Your task to perform on an android device: Add "razer blade" to the cart on costco.com Image 0: 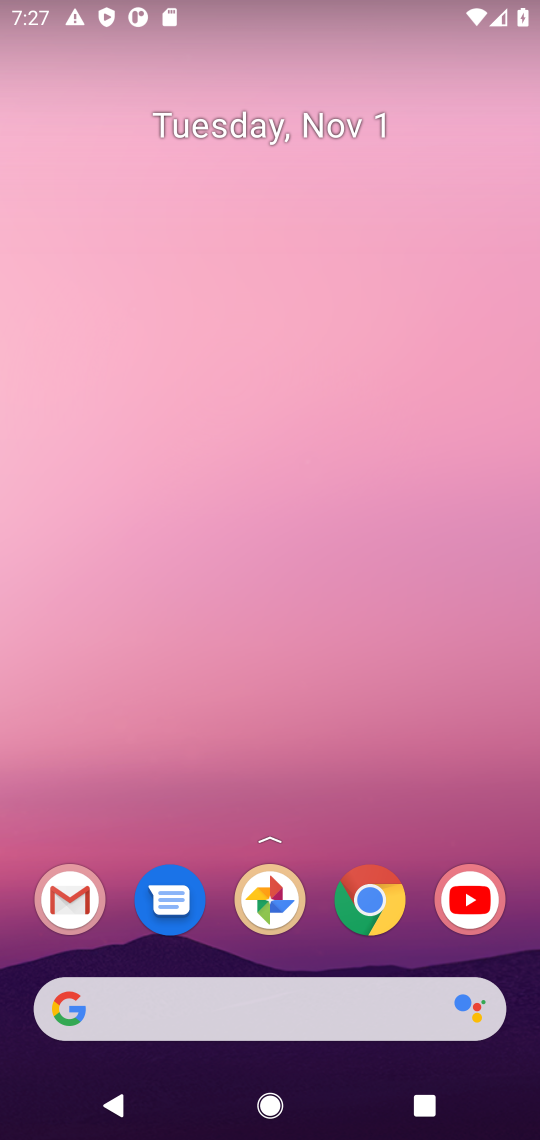
Step 0: drag from (338, 915) to (494, 490)
Your task to perform on an android device: Add "razer blade" to the cart on costco.com Image 1: 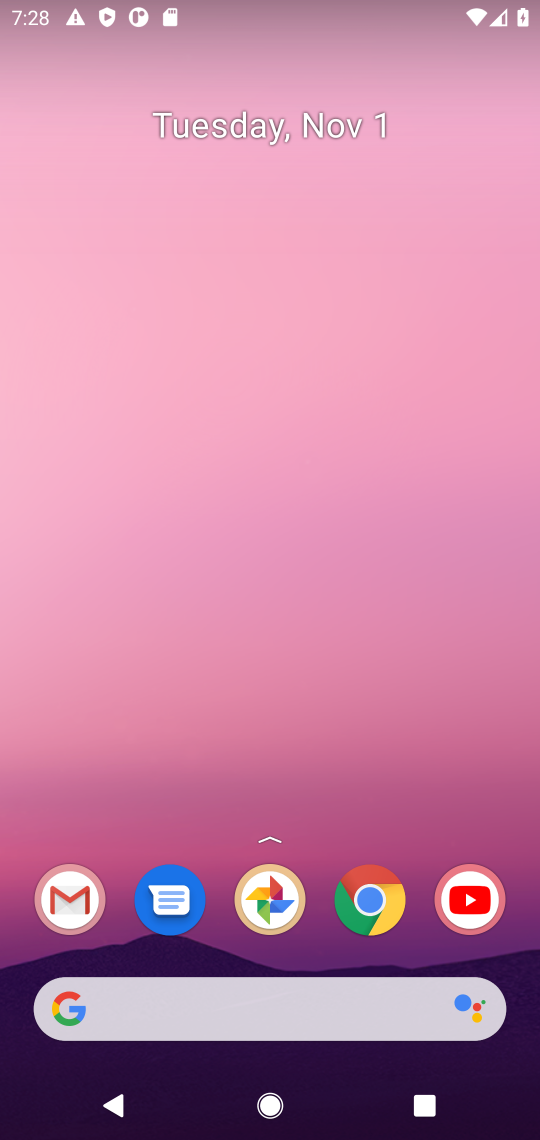
Step 1: drag from (304, 952) to (309, 21)
Your task to perform on an android device: Add "razer blade" to the cart on costco.com Image 2: 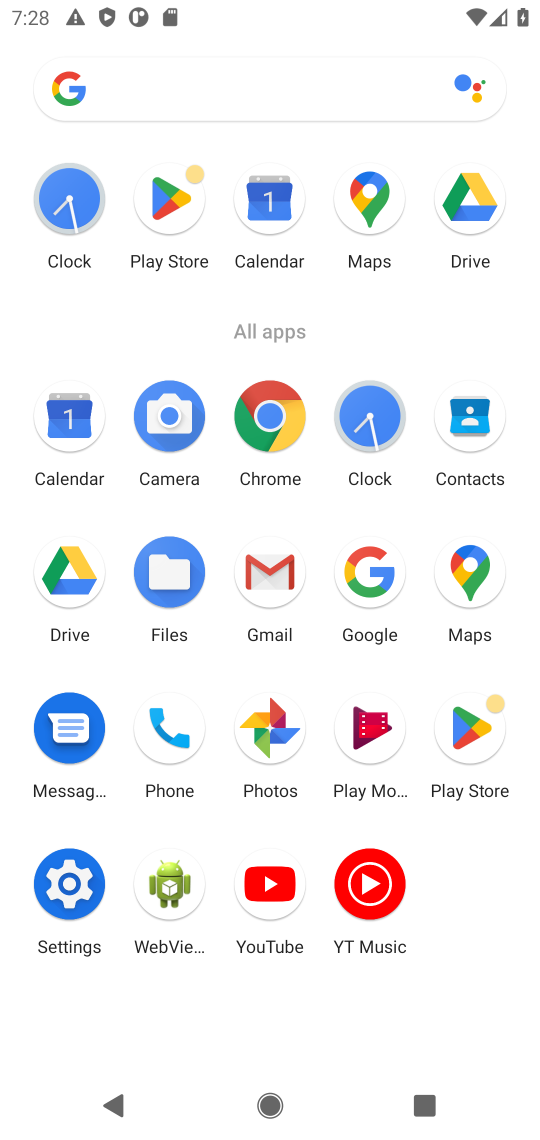
Step 2: click (277, 426)
Your task to perform on an android device: Add "razer blade" to the cart on costco.com Image 3: 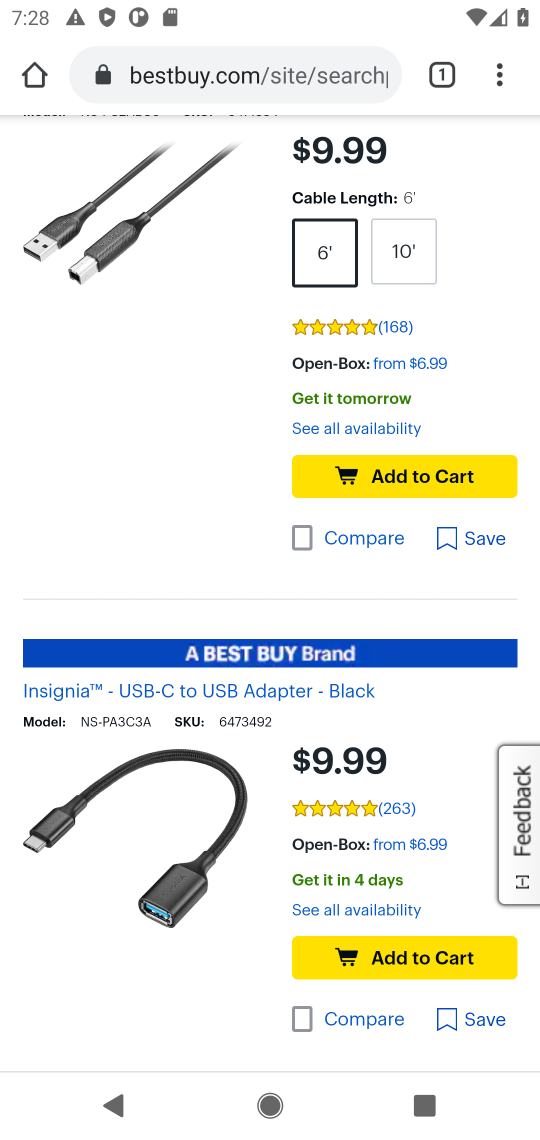
Step 3: click (272, 72)
Your task to perform on an android device: Add "razer blade" to the cart on costco.com Image 4: 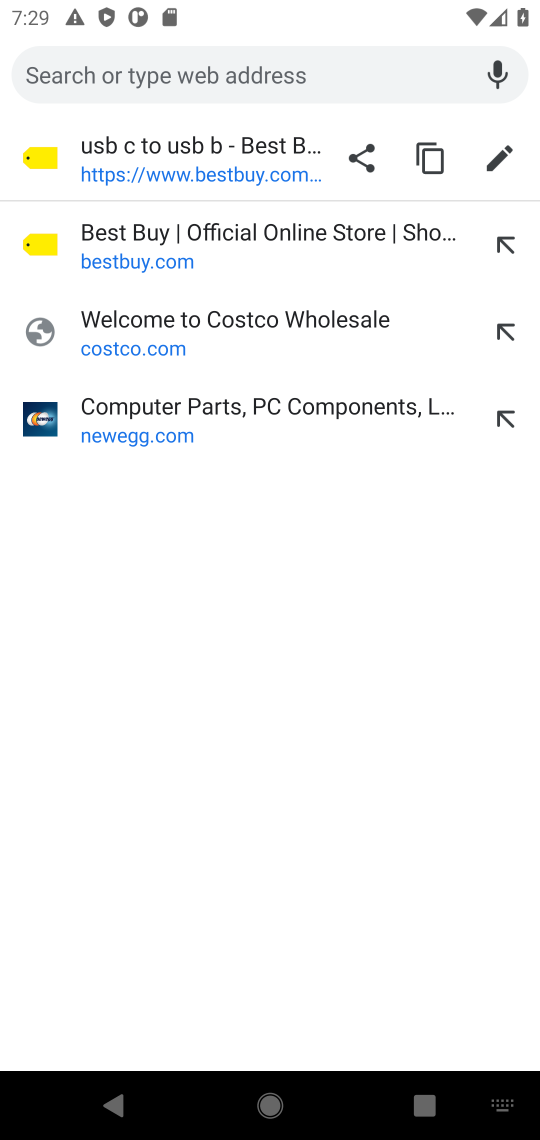
Step 4: type "costco.com"
Your task to perform on an android device: Add "razer blade" to the cart on costco.com Image 5: 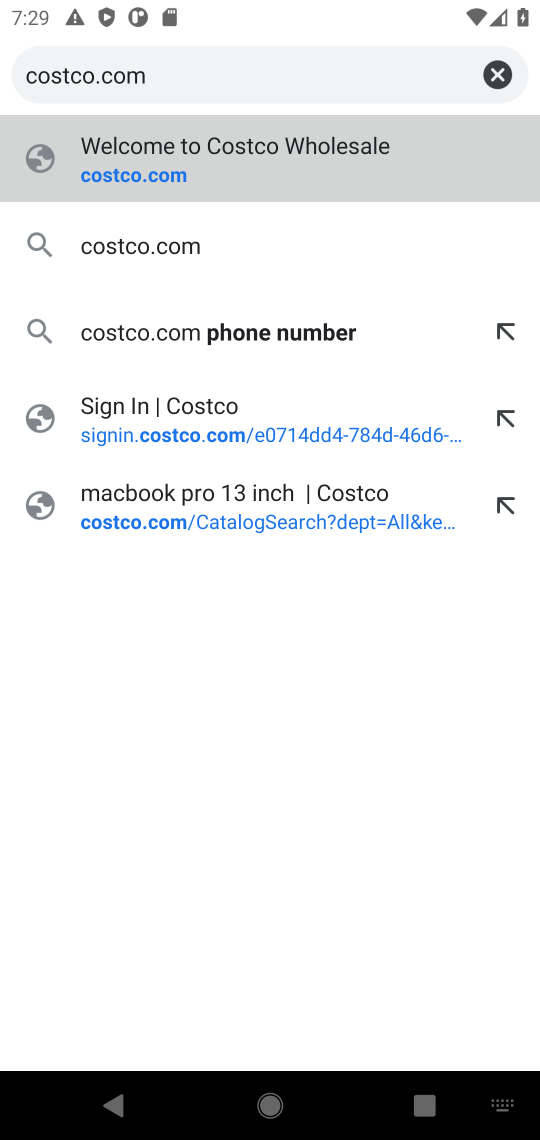
Step 5: press enter
Your task to perform on an android device: Add "razer blade" to the cart on costco.com Image 6: 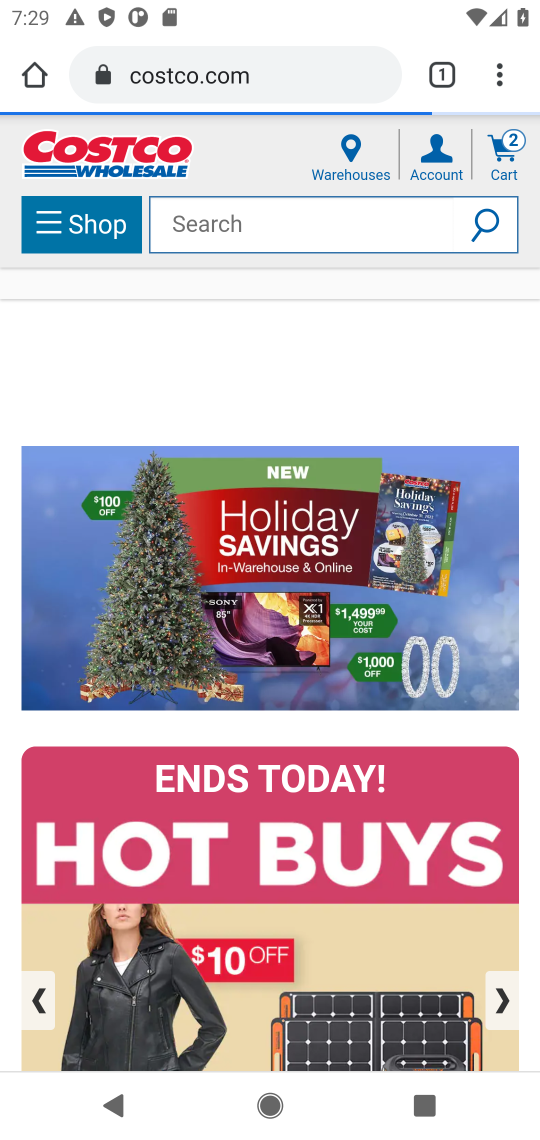
Step 6: click (342, 231)
Your task to perform on an android device: Add "razer blade" to the cart on costco.com Image 7: 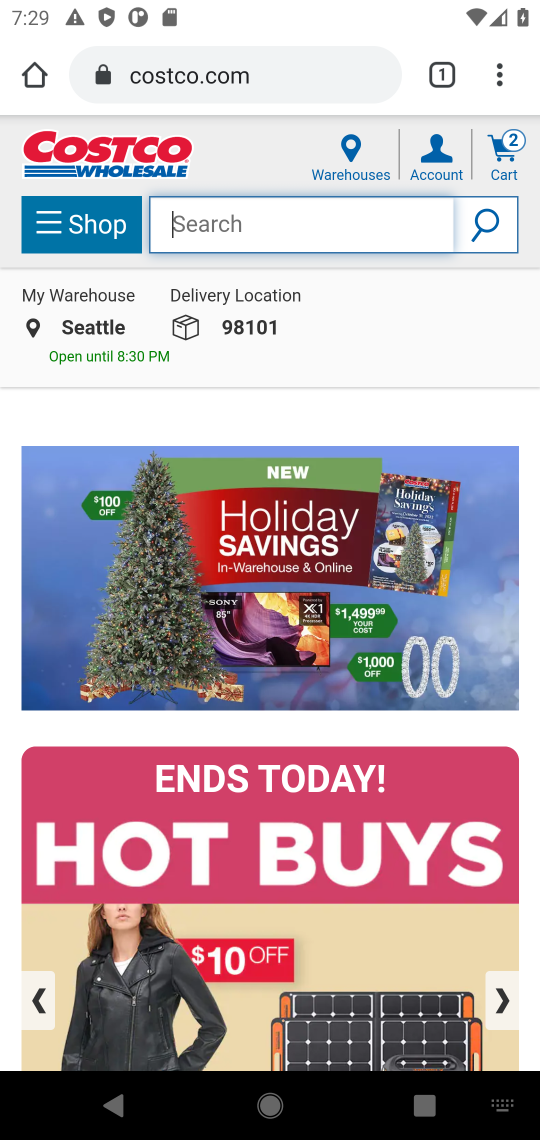
Step 7: type "razer blade"
Your task to perform on an android device: Add "razer blade" to the cart on costco.com Image 8: 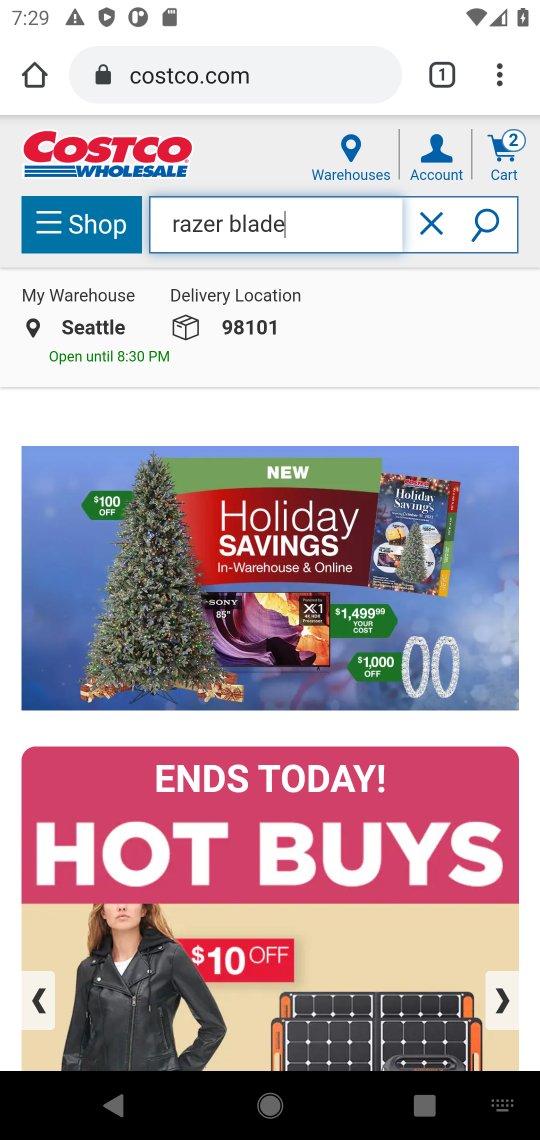
Step 8: press enter
Your task to perform on an android device: Add "razer blade" to the cart on costco.com Image 9: 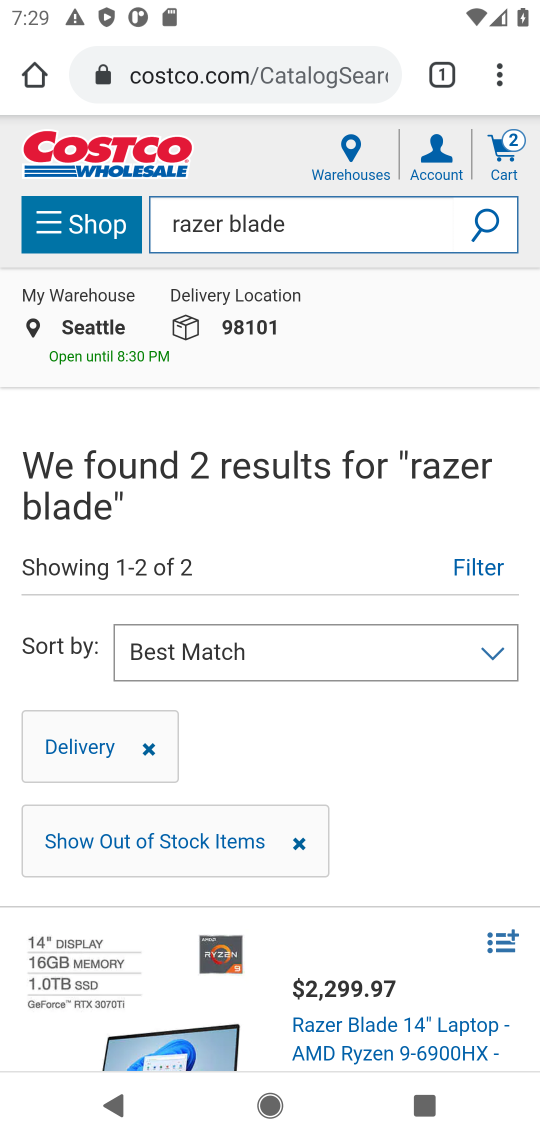
Step 9: drag from (349, 796) to (379, 417)
Your task to perform on an android device: Add "razer blade" to the cart on costco.com Image 10: 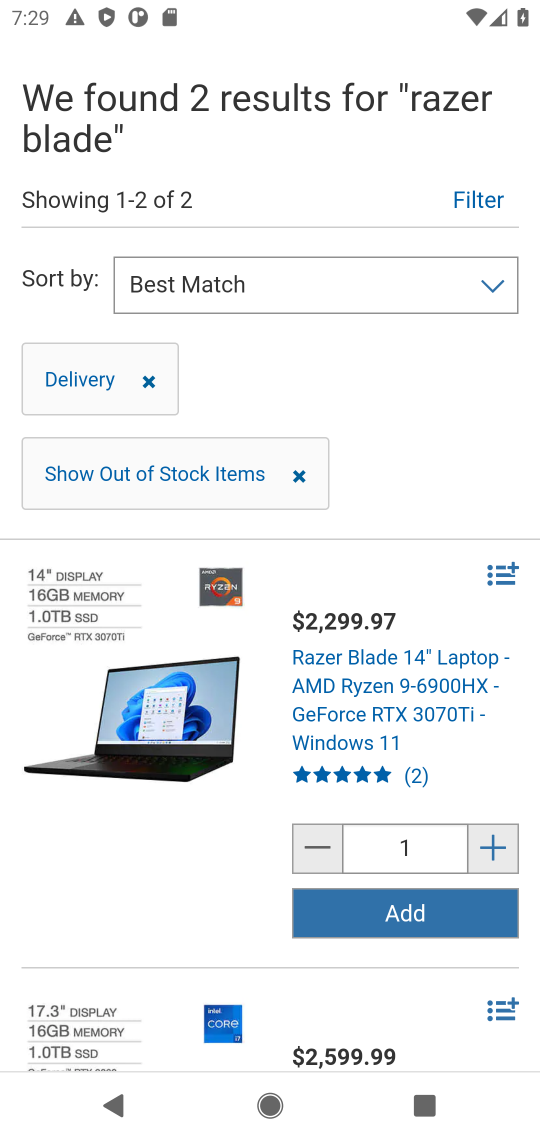
Step 10: click (402, 686)
Your task to perform on an android device: Add "razer blade" to the cart on costco.com Image 11: 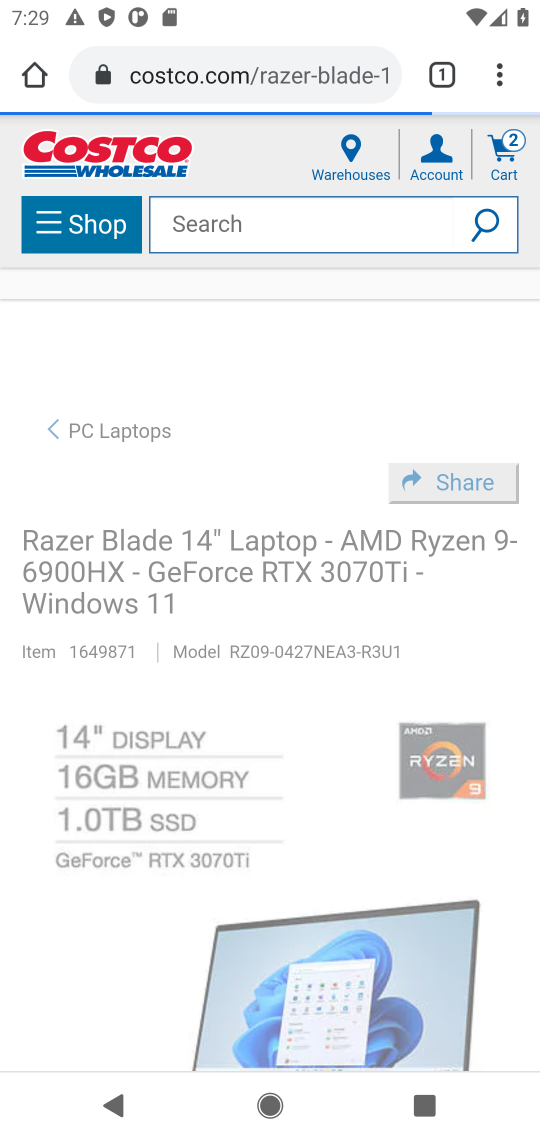
Step 11: drag from (309, 831) to (298, 154)
Your task to perform on an android device: Add "razer blade" to the cart on costco.com Image 12: 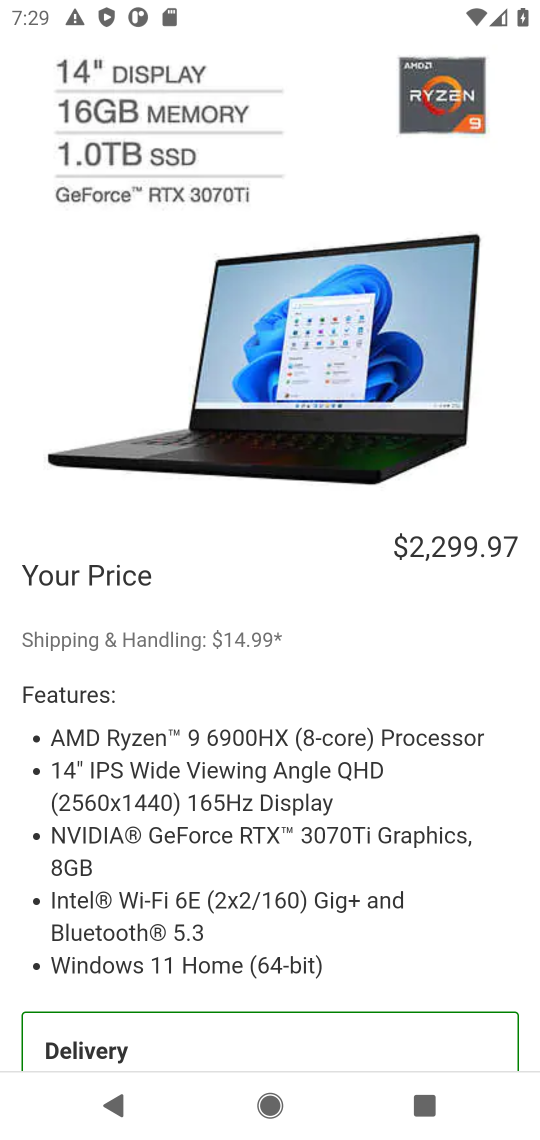
Step 12: drag from (272, 834) to (263, 252)
Your task to perform on an android device: Add "razer blade" to the cart on costco.com Image 13: 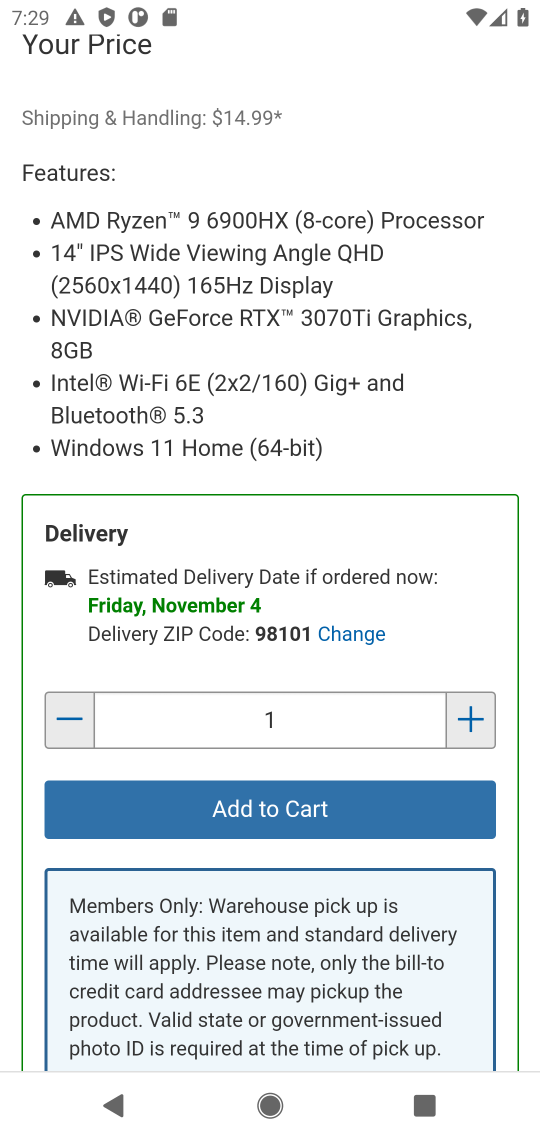
Step 13: click (326, 810)
Your task to perform on an android device: Add "razer blade" to the cart on costco.com Image 14: 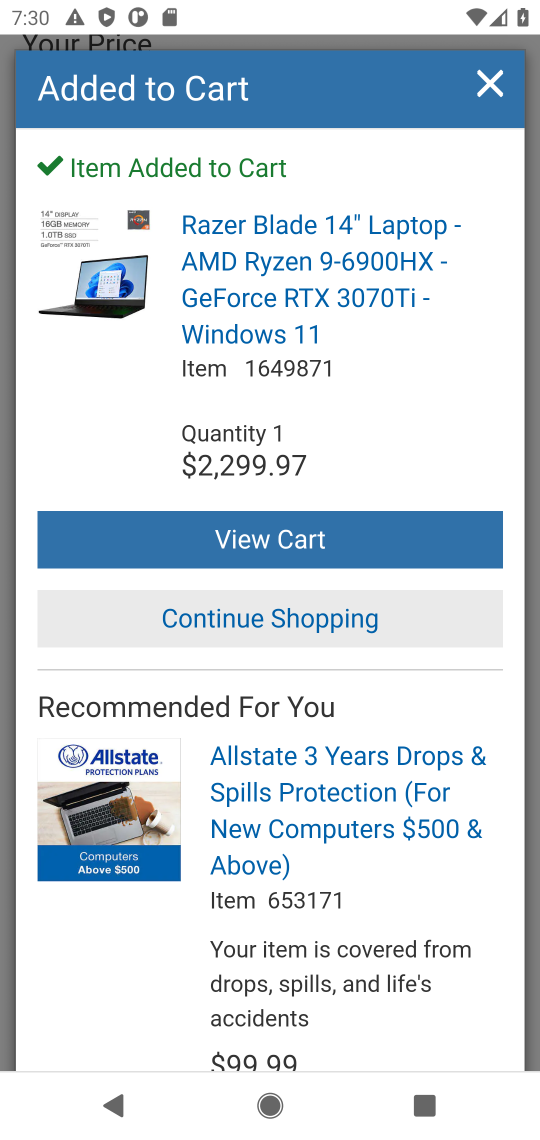
Step 14: task complete